Your task to perform on an android device: change the clock display to analog Image 0: 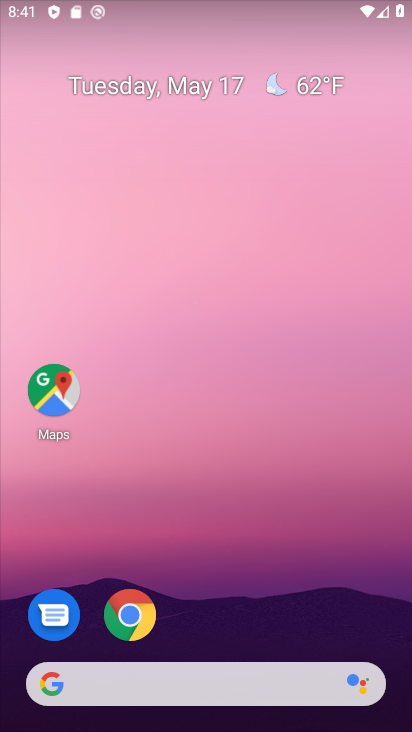
Step 0: drag from (350, 612) to (363, 53)
Your task to perform on an android device: change the clock display to analog Image 1: 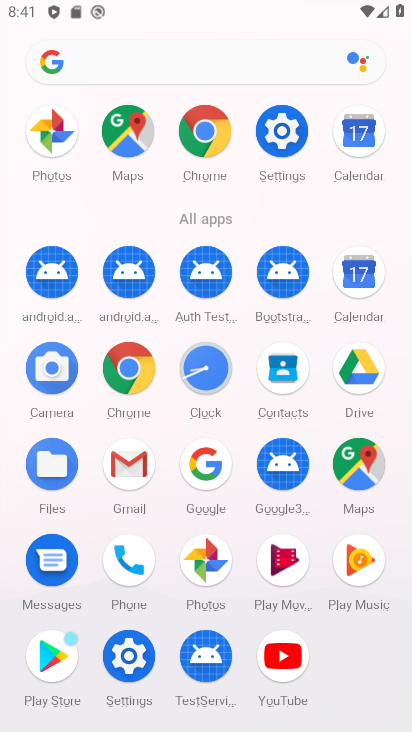
Step 1: click (214, 367)
Your task to perform on an android device: change the clock display to analog Image 2: 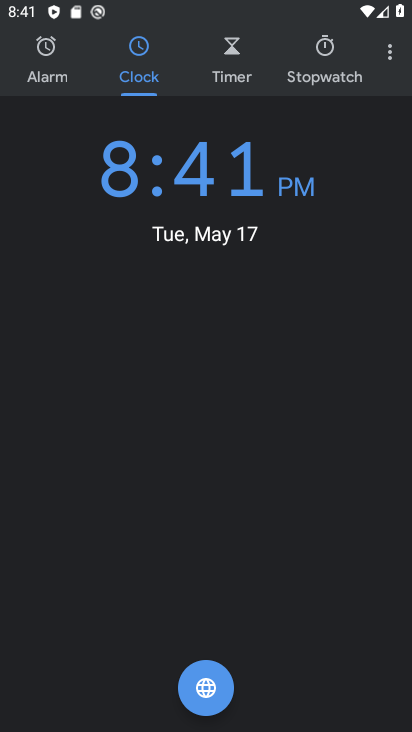
Step 2: click (396, 58)
Your task to perform on an android device: change the clock display to analog Image 3: 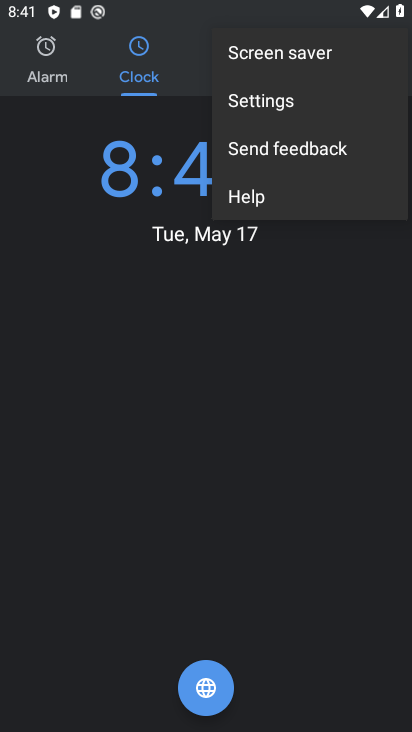
Step 3: click (284, 120)
Your task to perform on an android device: change the clock display to analog Image 4: 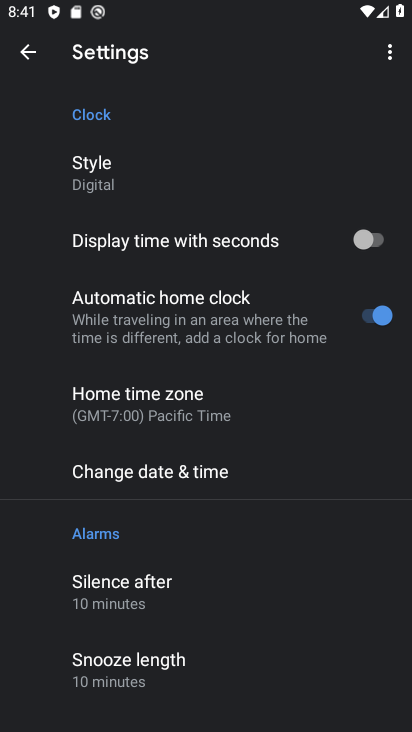
Step 4: click (211, 172)
Your task to perform on an android device: change the clock display to analog Image 5: 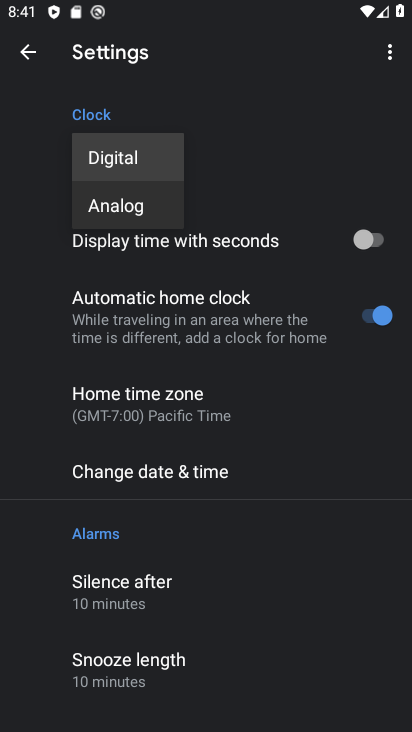
Step 5: click (115, 203)
Your task to perform on an android device: change the clock display to analog Image 6: 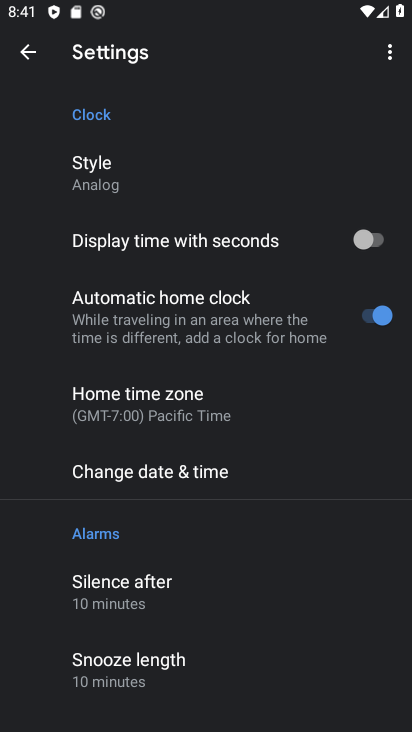
Step 6: task complete